Your task to perform on an android device: Do I have any events tomorrow? Image 0: 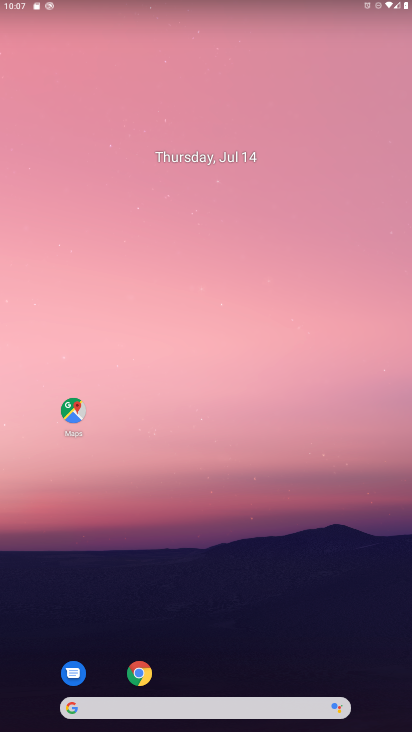
Step 0: drag from (195, 704) to (312, 290)
Your task to perform on an android device: Do I have any events tomorrow? Image 1: 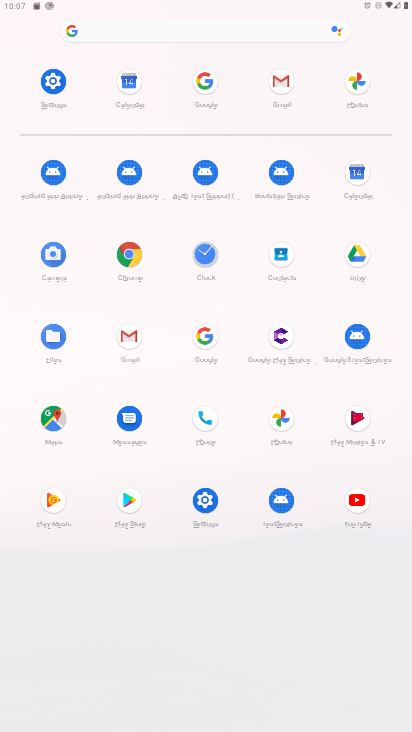
Step 1: click (354, 176)
Your task to perform on an android device: Do I have any events tomorrow? Image 2: 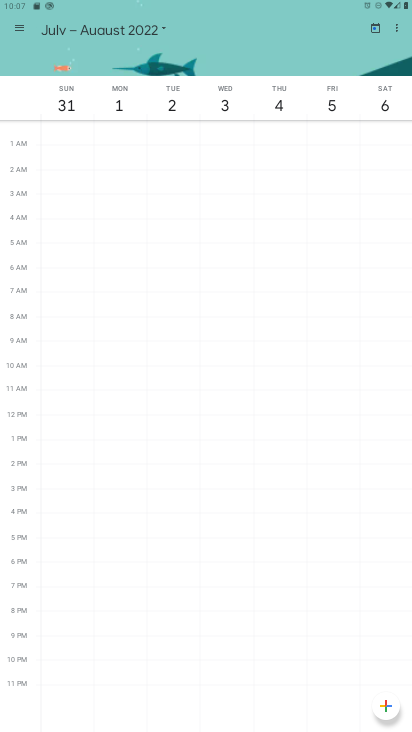
Step 2: click (380, 31)
Your task to perform on an android device: Do I have any events tomorrow? Image 3: 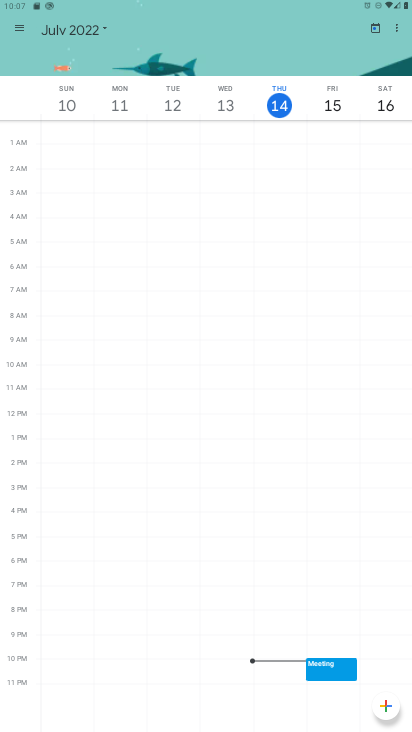
Step 3: click (103, 30)
Your task to perform on an android device: Do I have any events tomorrow? Image 4: 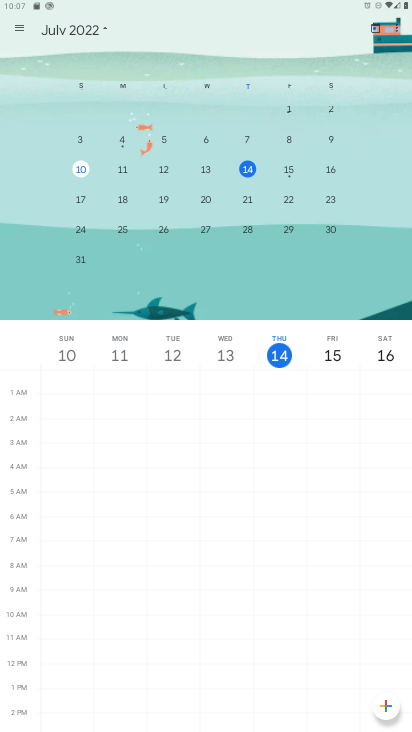
Step 4: click (283, 170)
Your task to perform on an android device: Do I have any events tomorrow? Image 5: 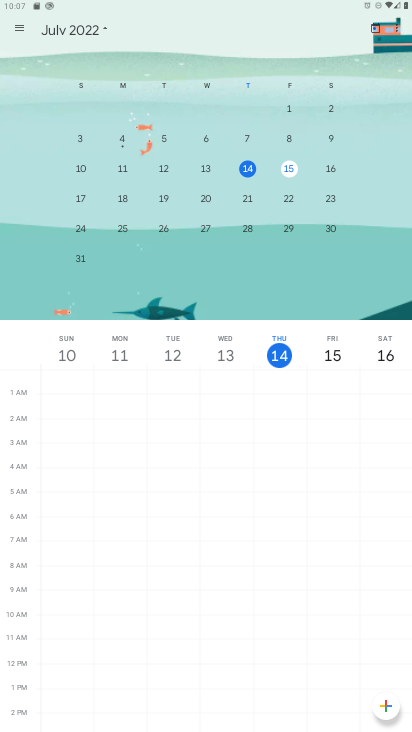
Step 5: click (13, 36)
Your task to perform on an android device: Do I have any events tomorrow? Image 6: 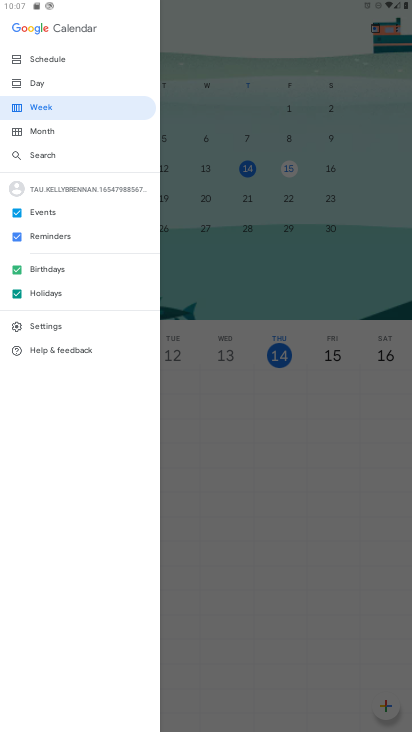
Step 6: click (52, 59)
Your task to perform on an android device: Do I have any events tomorrow? Image 7: 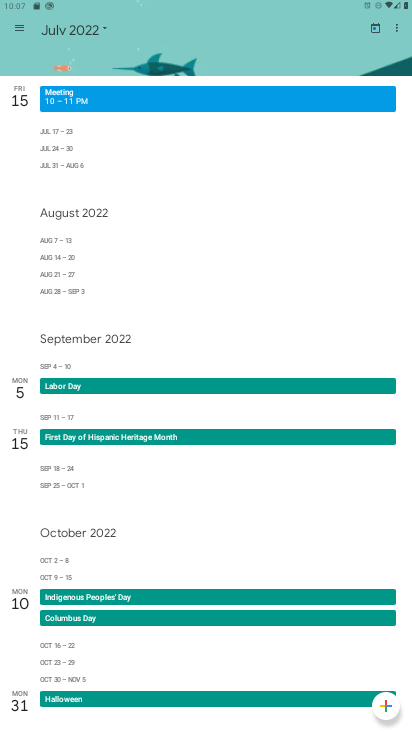
Step 7: task complete